Your task to perform on an android device: turn on priority inbox in the gmail app Image 0: 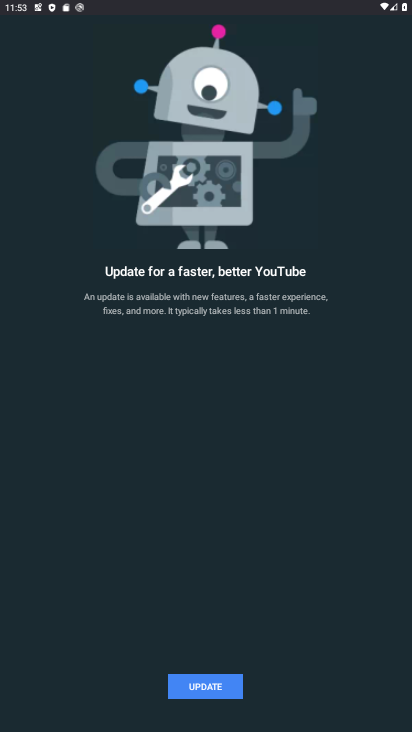
Step 0: press home button
Your task to perform on an android device: turn on priority inbox in the gmail app Image 1: 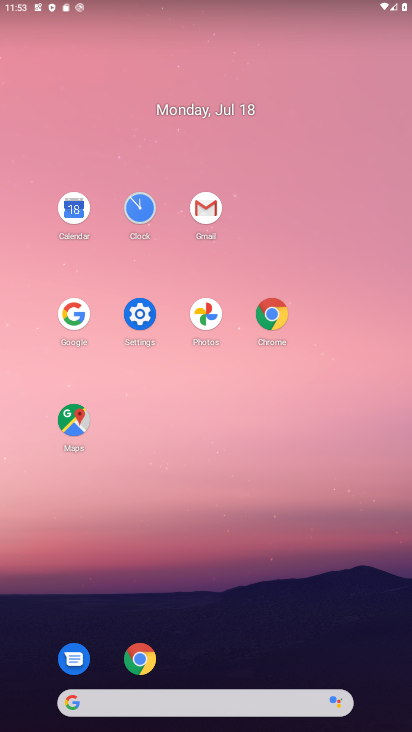
Step 1: click (213, 214)
Your task to perform on an android device: turn on priority inbox in the gmail app Image 2: 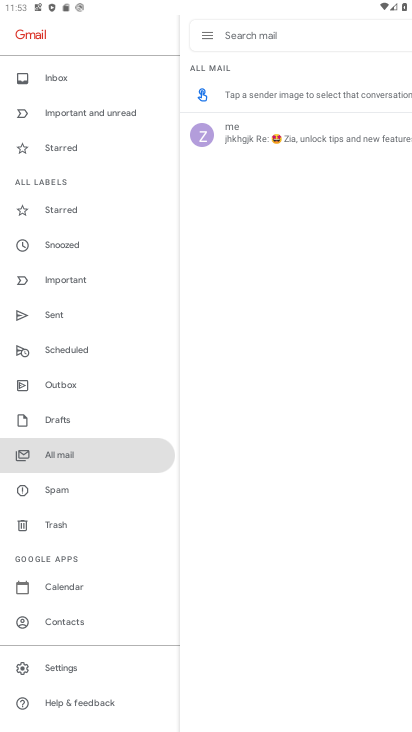
Step 2: click (107, 663)
Your task to perform on an android device: turn on priority inbox in the gmail app Image 3: 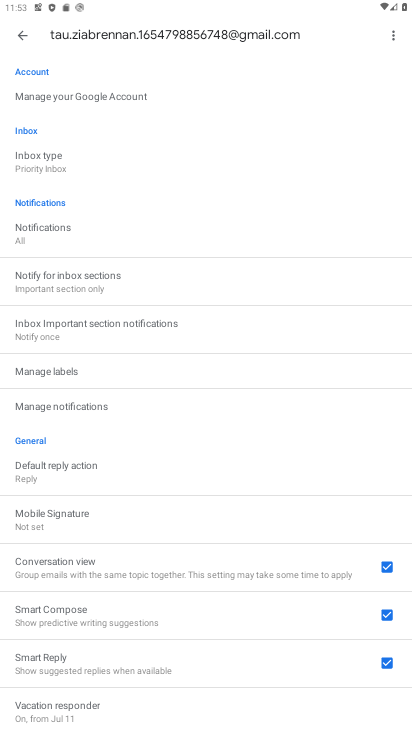
Step 3: task complete